Your task to perform on an android device: check battery use Image 0: 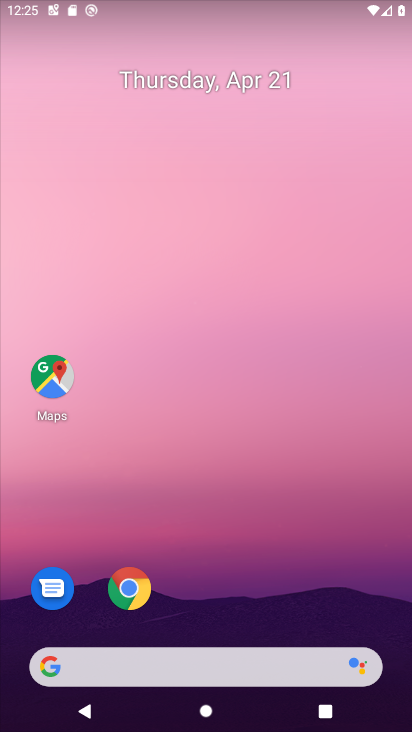
Step 0: drag from (215, 609) to (2, 66)
Your task to perform on an android device: check battery use Image 1: 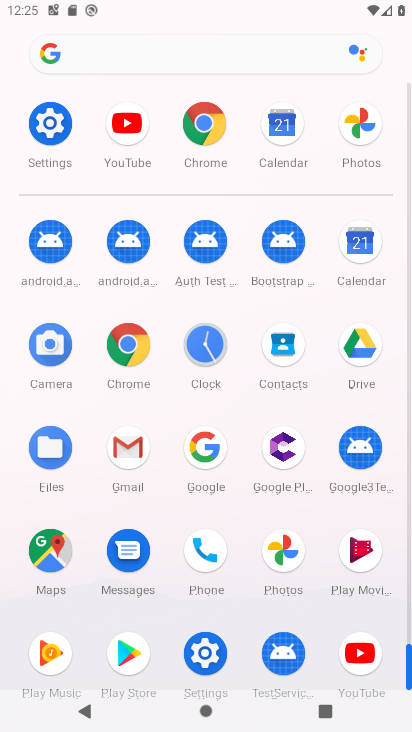
Step 1: click (48, 123)
Your task to perform on an android device: check battery use Image 2: 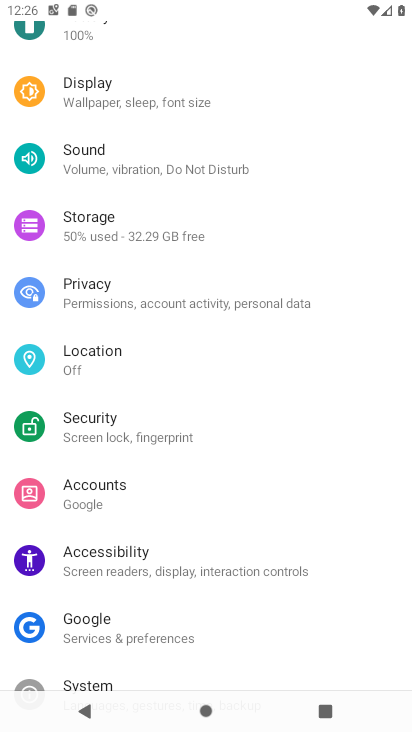
Step 2: drag from (109, 76) to (174, 559)
Your task to perform on an android device: check battery use Image 3: 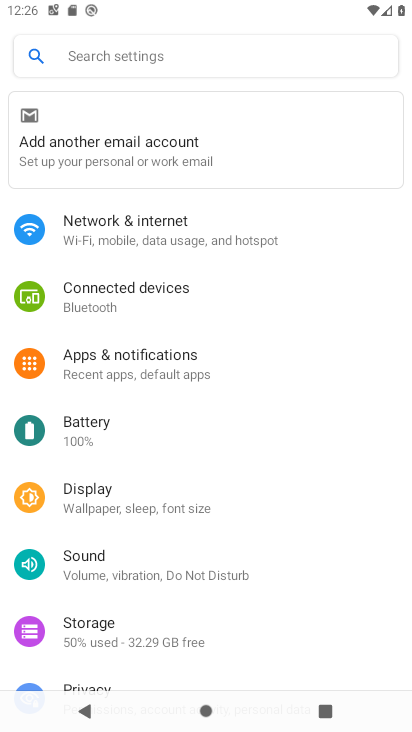
Step 3: click (111, 422)
Your task to perform on an android device: check battery use Image 4: 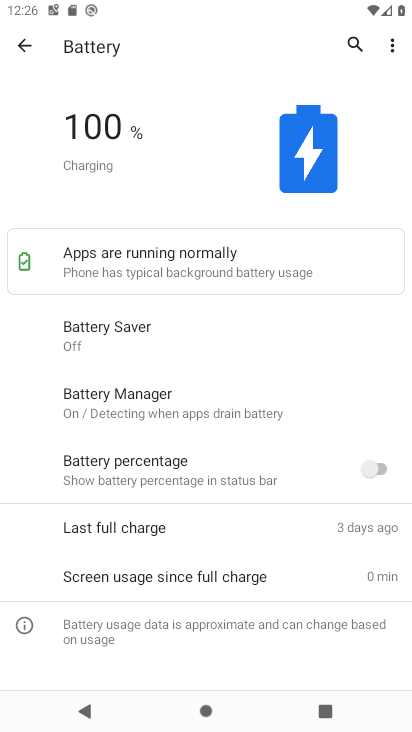
Step 4: click (384, 46)
Your task to perform on an android device: check battery use Image 5: 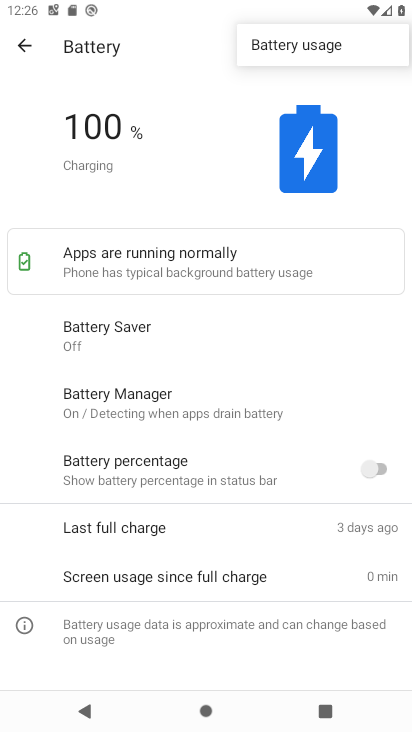
Step 5: click (309, 36)
Your task to perform on an android device: check battery use Image 6: 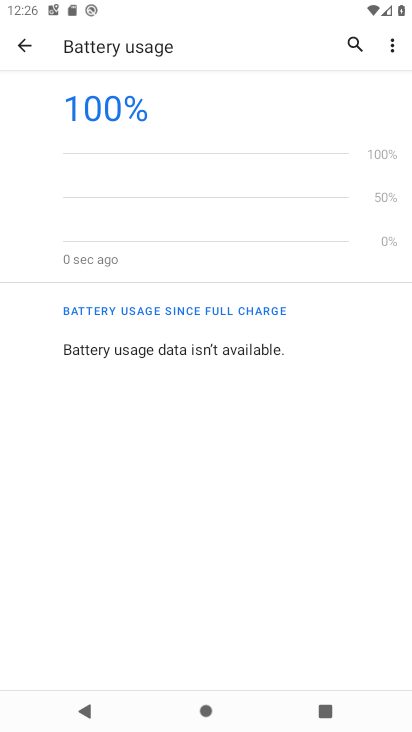
Step 6: task complete